Your task to perform on an android device: check storage Image 0: 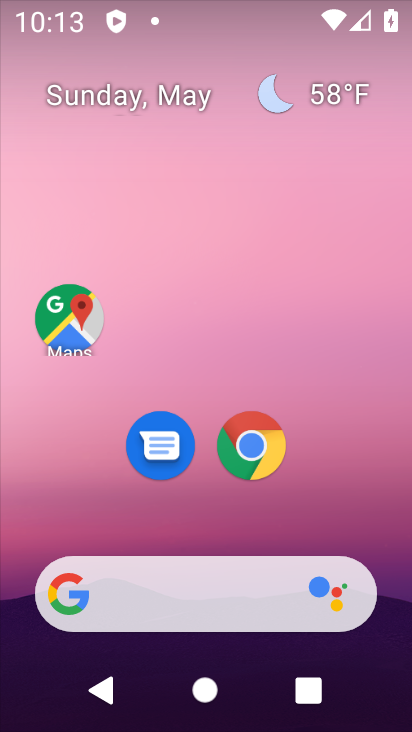
Step 0: drag from (347, 379) to (271, 52)
Your task to perform on an android device: check storage Image 1: 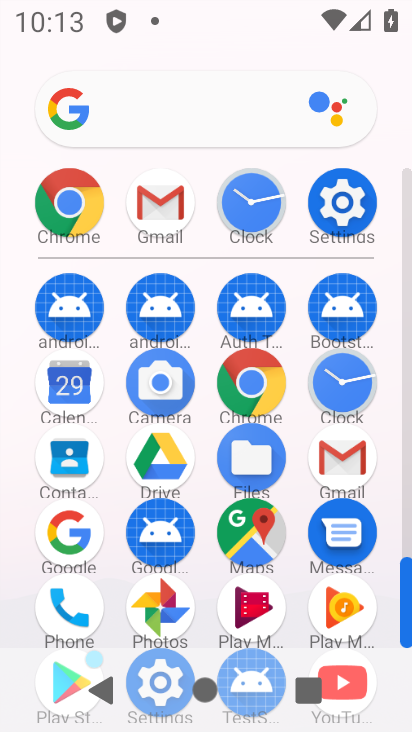
Step 1: click (344, 200)
Your task to perform on an android device: check storage Image 2: 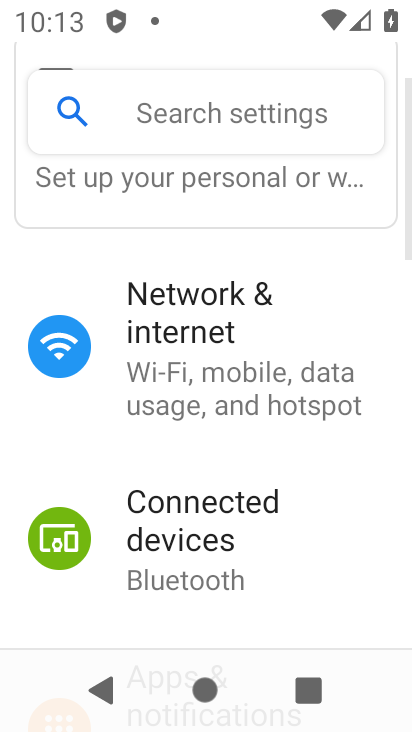
Step 2: drag from (299, 201) to (305, 106)
Your task to perform on an android device: check storage Image 3: 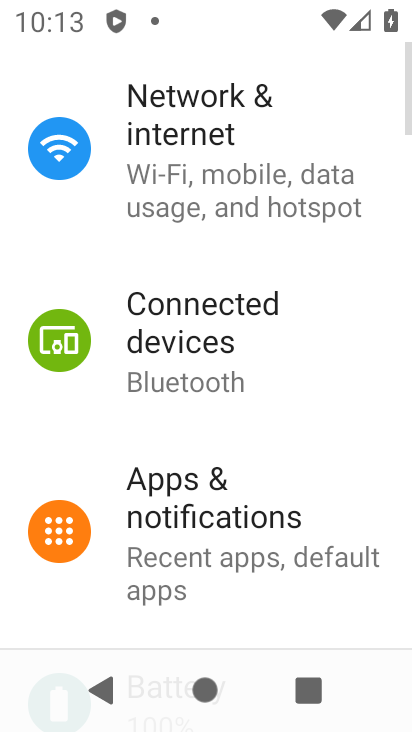
Step 3: drag from (310, 500) to (304, 186)
Your task to perform on an android device: check storage Image 4: 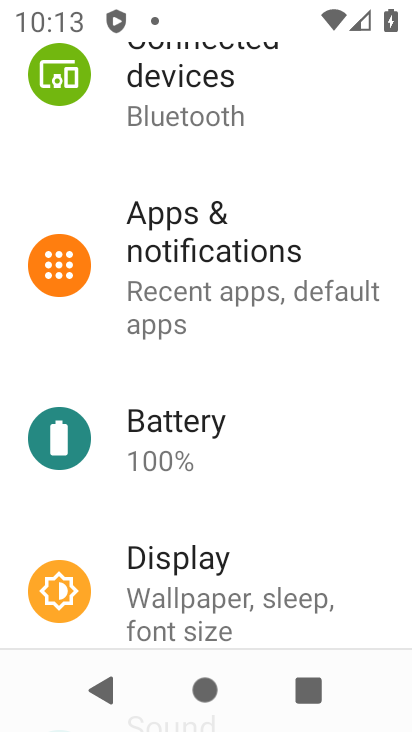
Step 4: drag from (283, 579) to (292, 160)
Your task to perform on an android device: check storage Image 5: 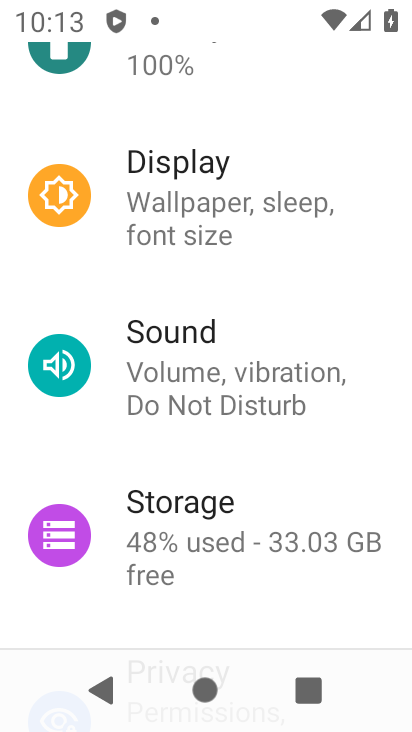
Step 5: click (221, 508)
Your task to perform on an android device: check storage Image 6: 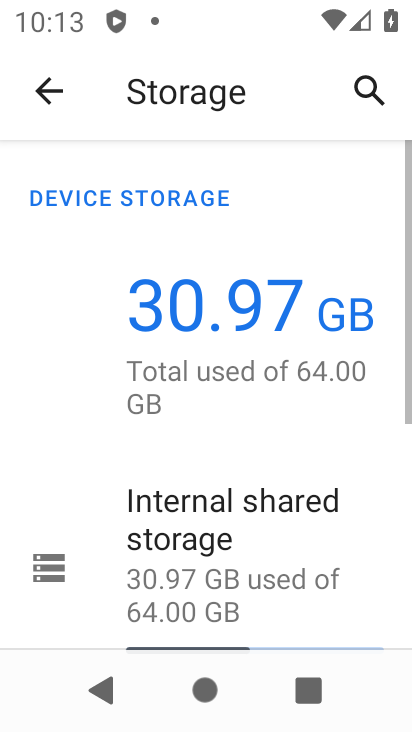
Step 6: task complete